Your task to perform on an android device: show emergency info Image 0: 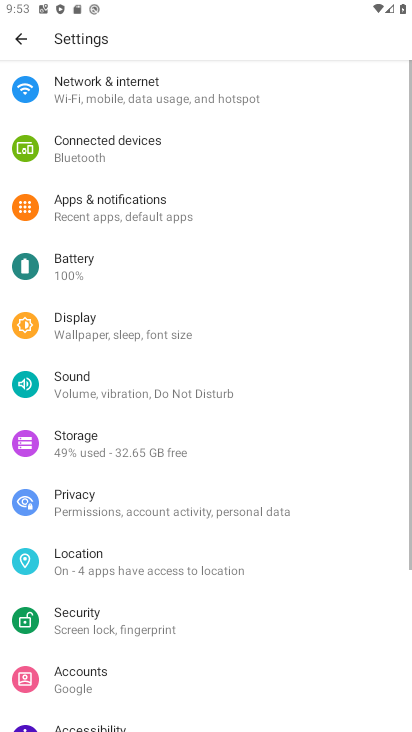
Step 0: press back button
Your task to perform on an android device: show emergency info Image 1: 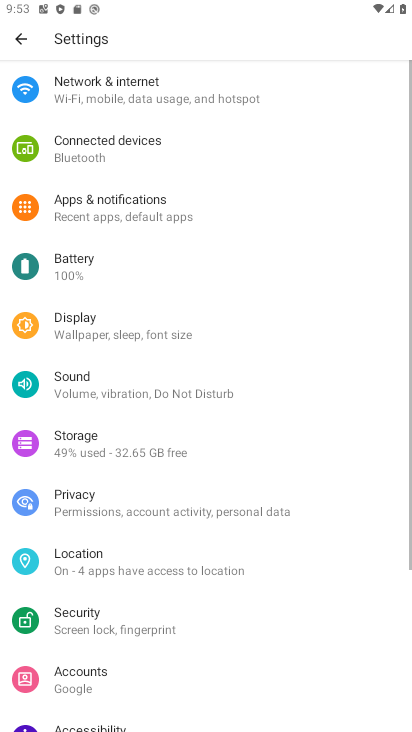
Step 1: press back button
Your task to perform on an android device: show emergency info Image 2: 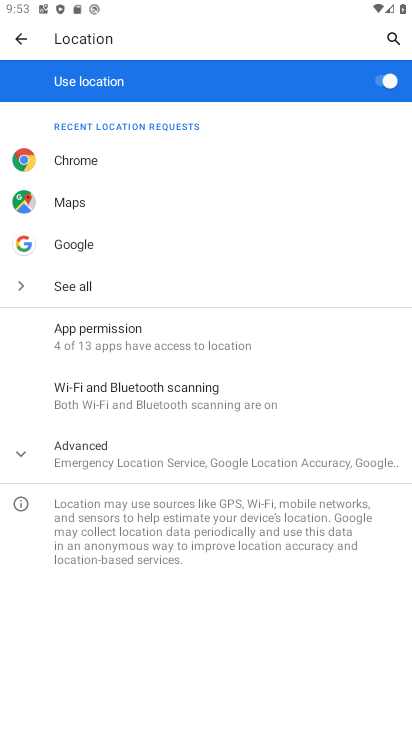
Step 2: click (13, 41)
Your task to perform on an android device: show emergency info Image 3: 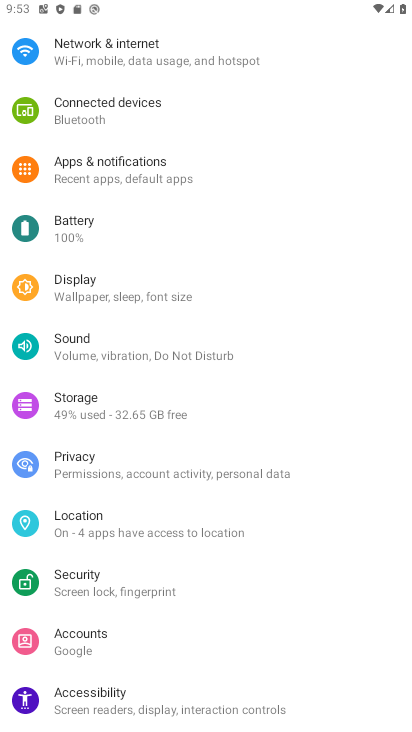
Step 3: press home button
Your task to perform on an android device: show emergency info Image 4: 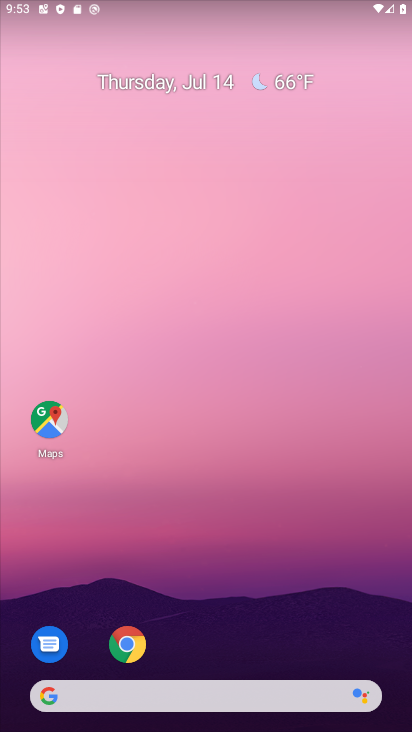
Step 4: drag from (198, 358) to (172, 235)
Your task to perform on an android device: show emergency info Image 5: 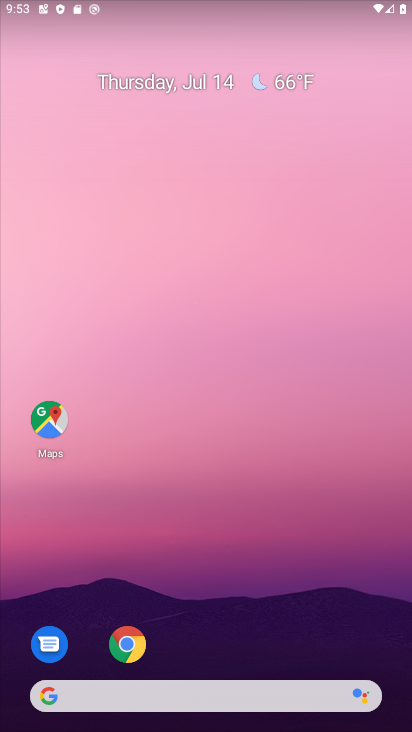
Step 5: drag from (207, 653) to (209, 171)
Your task to perform on an android device: show emergency info Image 6: 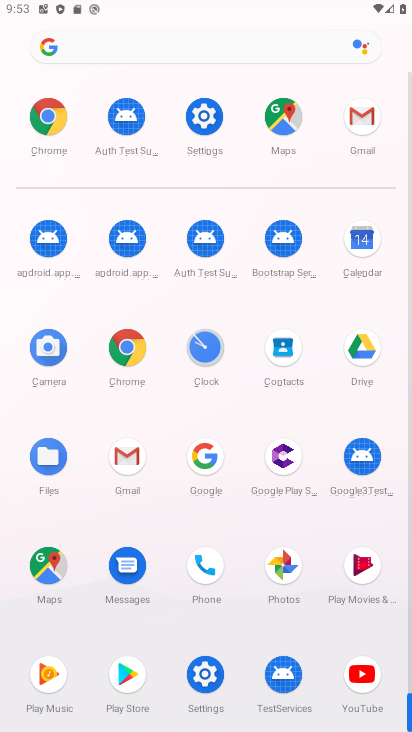
Step 6: click (193, 671)
Your task to perform on an android device: show emergency info Image 7: 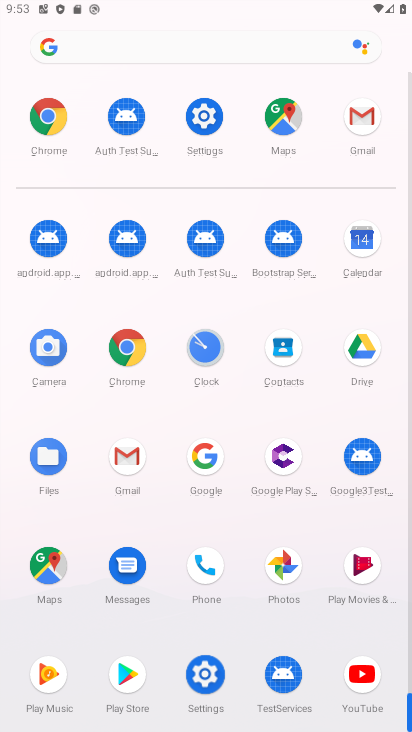
Step 7: click (199, 672)
Your task to perform on an android device: show emergency info Image 8: 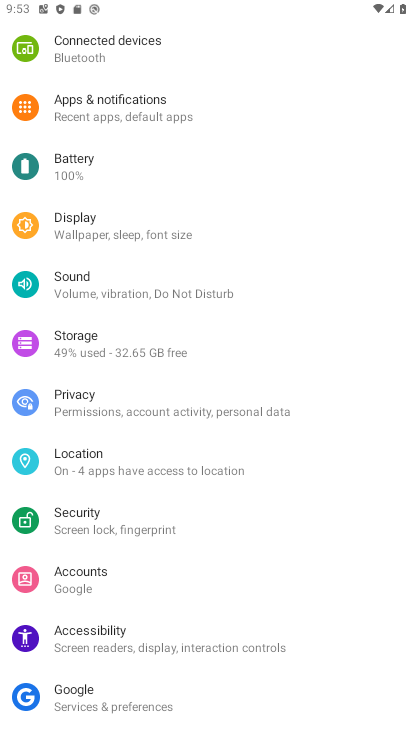
Step 8: click (205, 670)
Your task to perform on an android device: show emergency info Image 9: 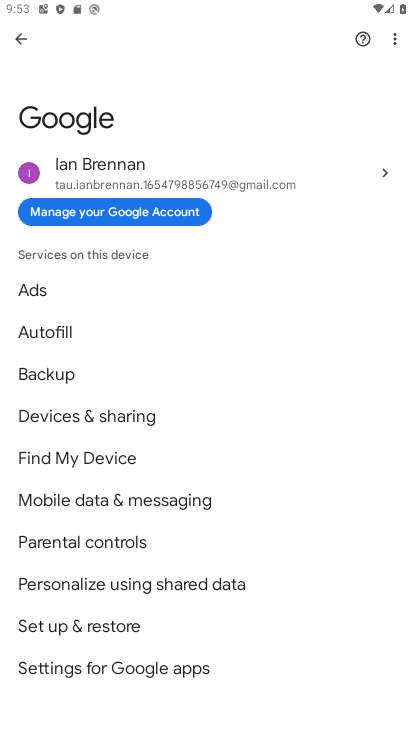
Step 9: press back button
Your task to perform on an android device: show emergency info Image 10: 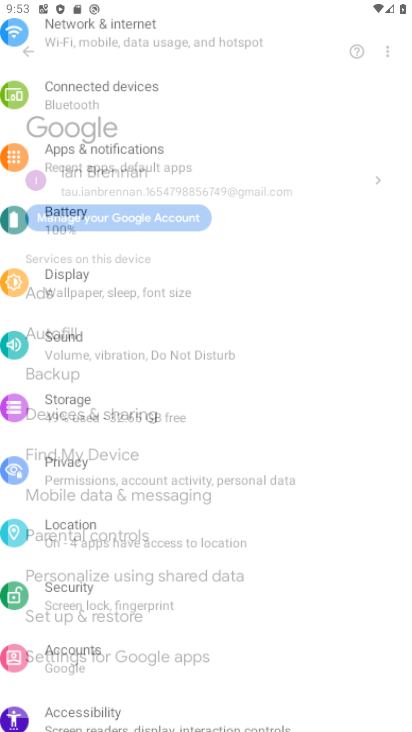
Step 10: click (15, 33)
Your task to perform on an android device: show emergency info Image 11: 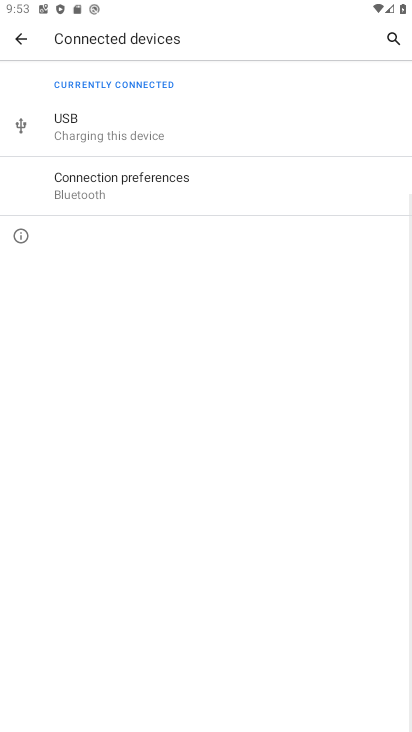
Step 11: click (12, 43)
Your task to perform on an android device: show emergency info Image 12: 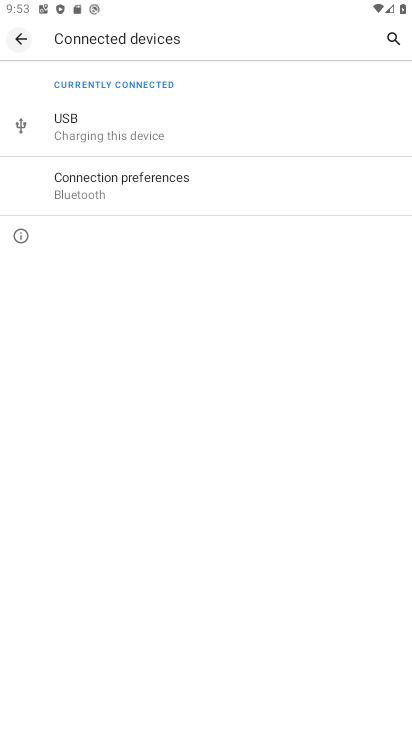
Step 12: click (14, 40)
Your task to perform on an android device: show emergency info Image 13: 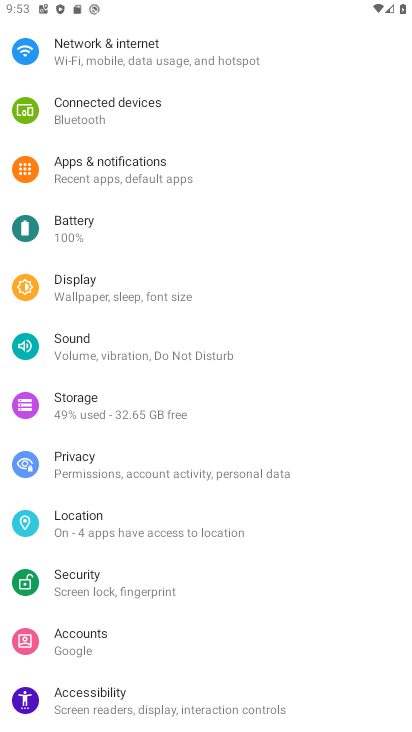
Step 13: click (84, 697)
Your task to perform on an android device: show emergency info Image 14: 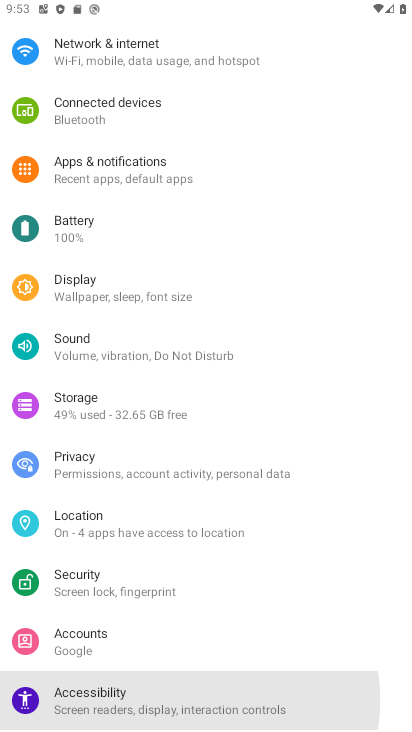
Step 14: click (84, 698)
Your task to perform on an android device: show emergency info Image 15: 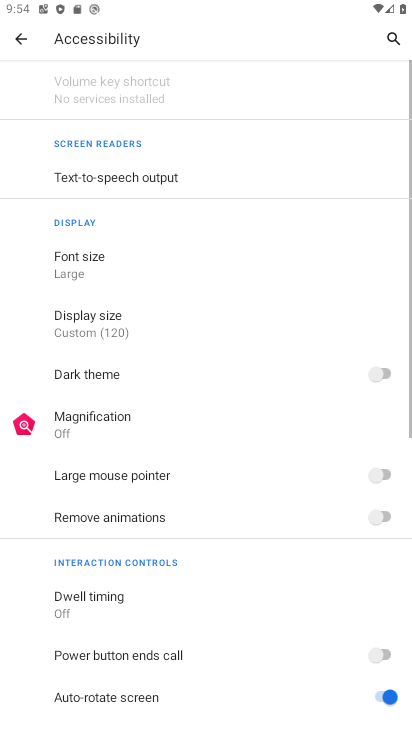
Step 15: click (94, 694)
Your task to perform on an android device: show emergency info Image 16: 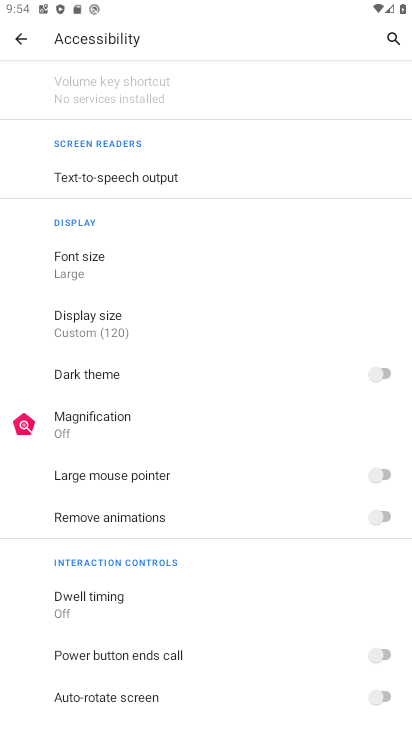
Step 16: task complete